Your task to perform on an android device: allow notifications from all sites in the chrome app Image 0: 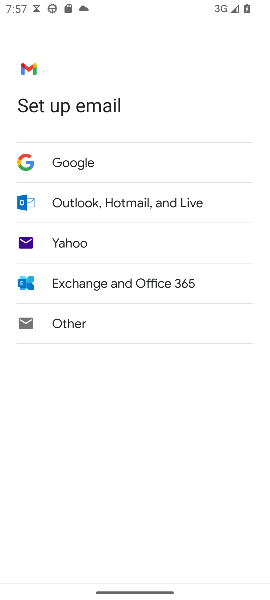
Step 0: press home button
Your task to perform on an android device: allow notifications from all sites in the chrome app Image 1: 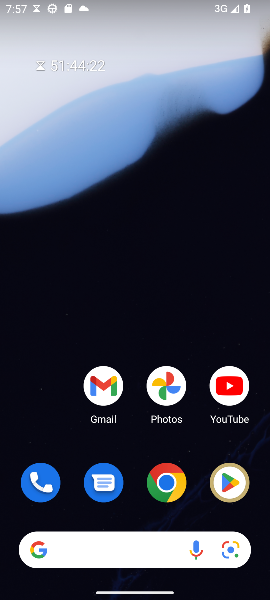
Step 1: drag from (112, 546) to (188, 4)
Your task to perform on an android device: allow notifications from all sites in the chrome app Image 2: 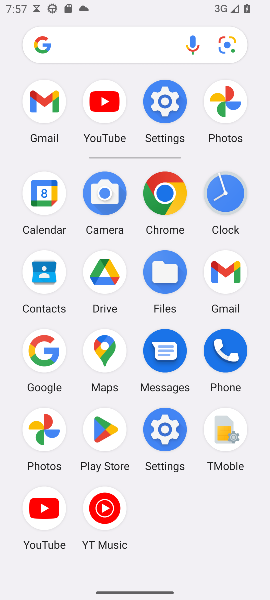
Step 2: click (164, 194)
Your task to perform on an android device: allow notifications from all sites in the chrome app Image 3: 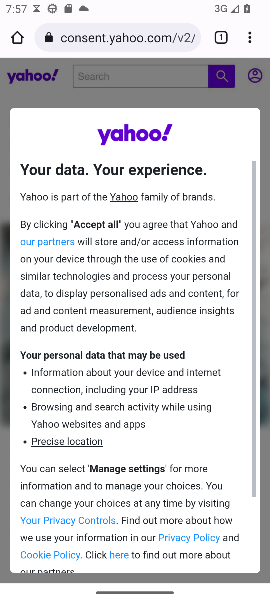
Step 3: drag from (251, 37) to (160, 520)
Your task to perform on an android device: allow notifications from all sites in the chrome app Image 4: 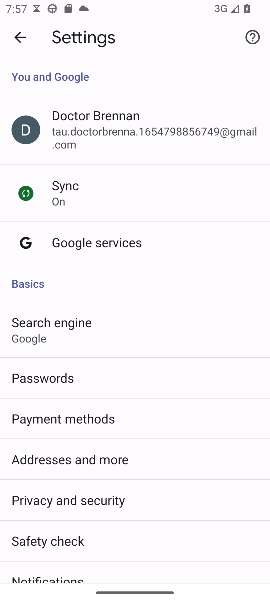
Step 4: drag from (94, 462) to (150, 85)
Your task to perform on an android device: allow notifications from all sites in the chrome app Image 5: 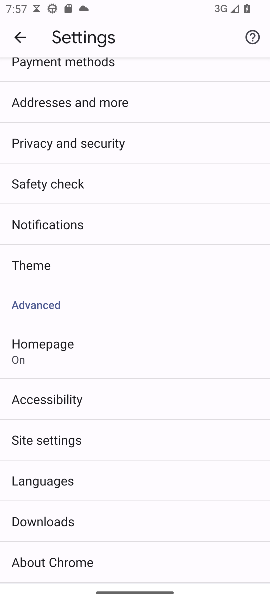
Step 5: click (63, 445)
Your task to perform on an android device: allow notifications from all sites in the chrome app Image 6: 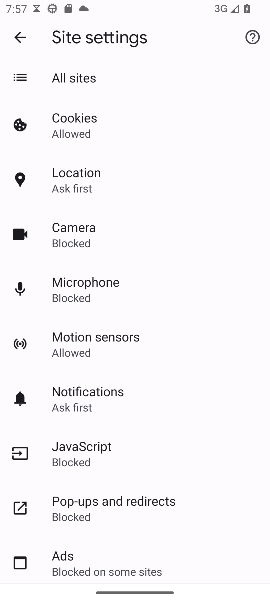
Step 6: click (92, 398)
Your task to perform on an android device: allow notifications from all sites in the chrome app Image 7: 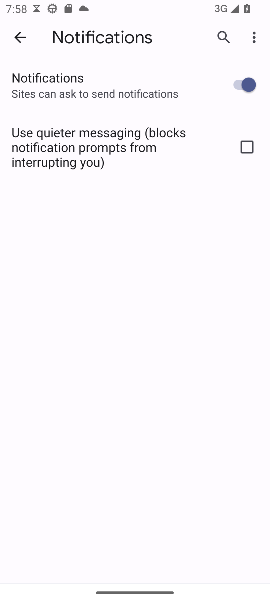
Step 7: click (119, 84)
Your task to perform on an android device: allow notifications from all sites in the chrome app Image 8: 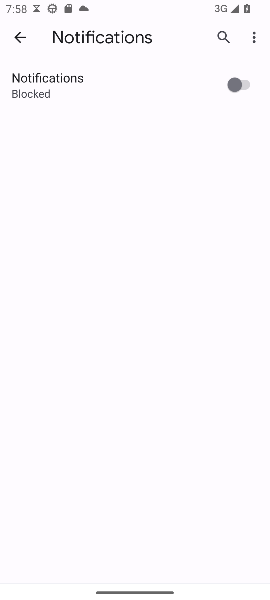
Step 8: click (129, 87)
Your task to perform on an android device: allow notifications from all sites in the chrome app Image 9: 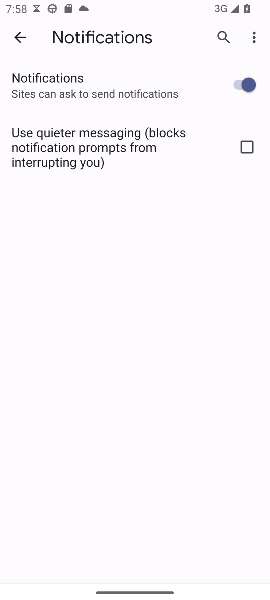
Step 9: task complete